Your task to perform on an android device: Open settings on Google Maps Image 0: 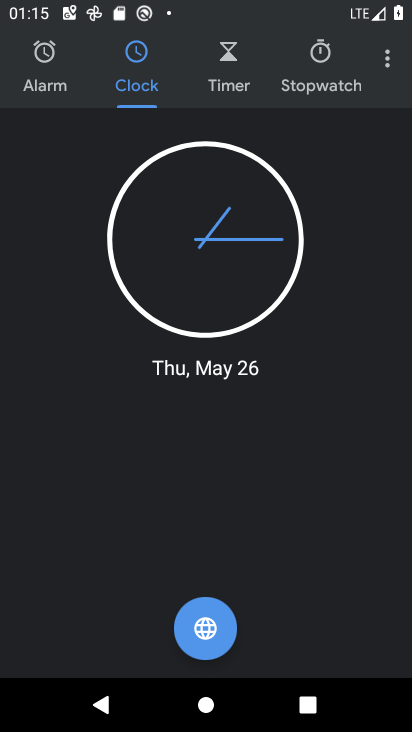
Step 0: press home button
Your task to perform on an android device: Open settings on Google Maps Image 1: 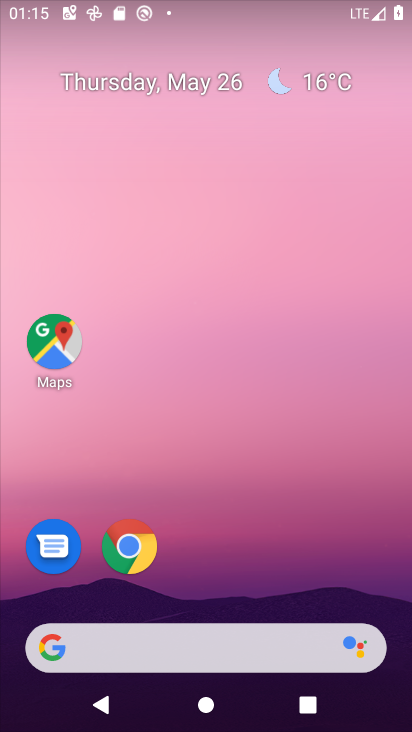
Step 1: click (54, 345)
Your task to perform on an android device: Open settings on Google Maps Image 2: 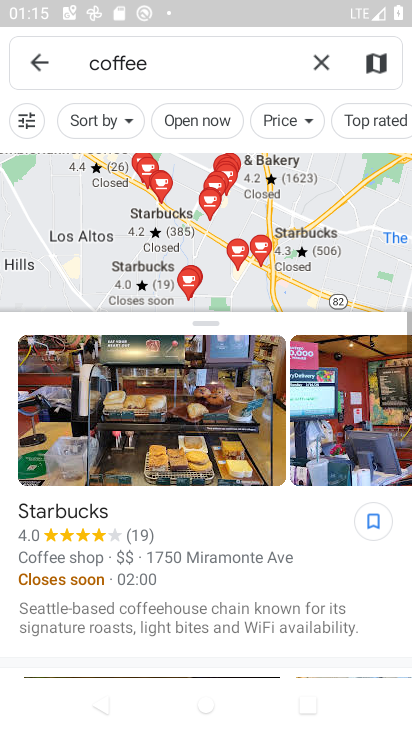
Step 2: click (325, 58)
Your task to perform on an android device: Open settings on Google Maps Image 3: 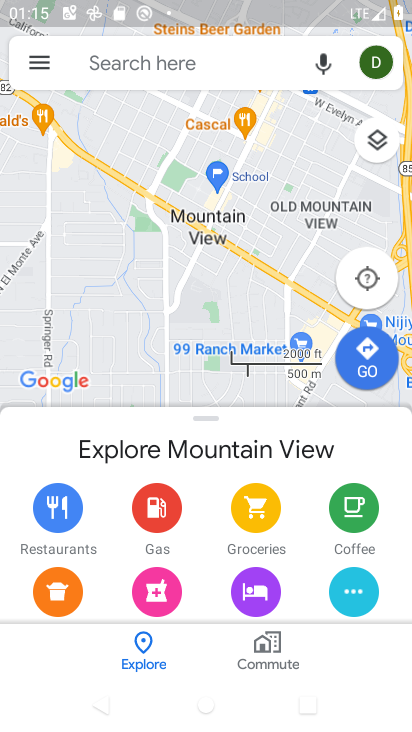
Step 3: click (42, 64)
Your task to perform on an android device: Open settings on Google Maps Image 4: 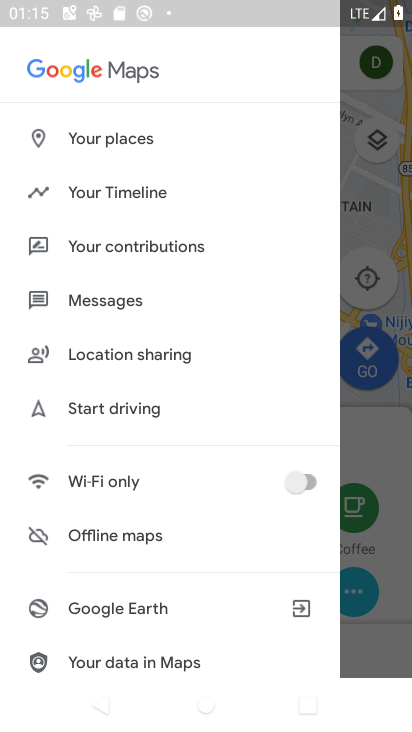
Step 4: drag from (132, 632) to (208, 216)
Your task to perform on an android device: Open settings on Google Maps Image 5: 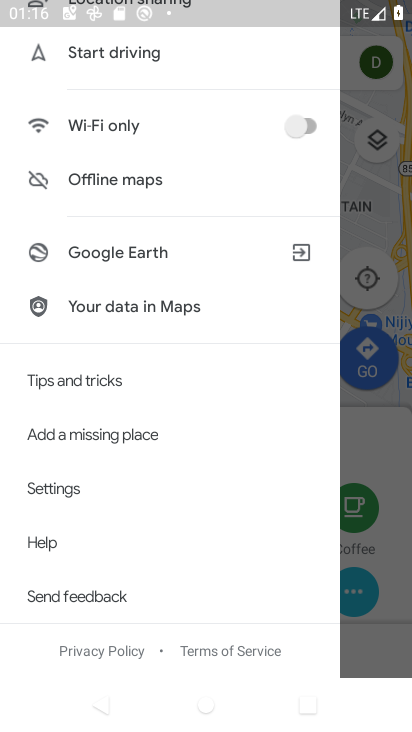
Step 5: click (66, 480)
Your task to perform on an android device: Open settings on Google Maps Image 6: 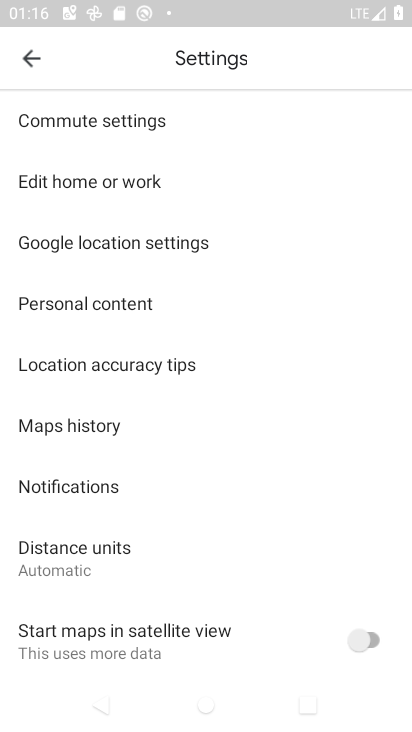
Step 6: task complete